Your task to perform on an android device: add a label to a message in the gmail app Image 0: 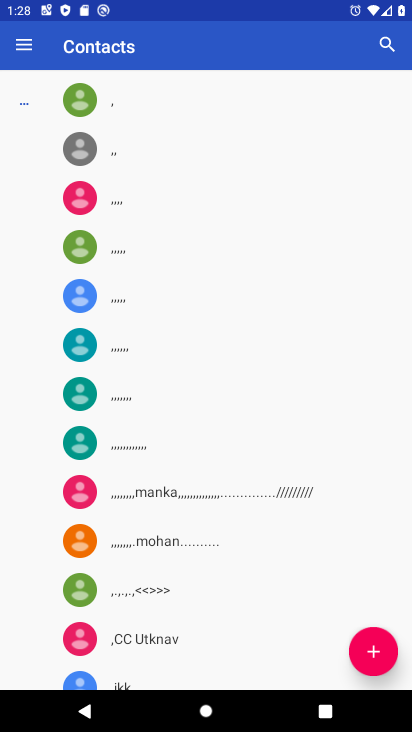
Step 0: press home button
Your task to perform on an android device: add a label to a message in the gmail app Image 1: 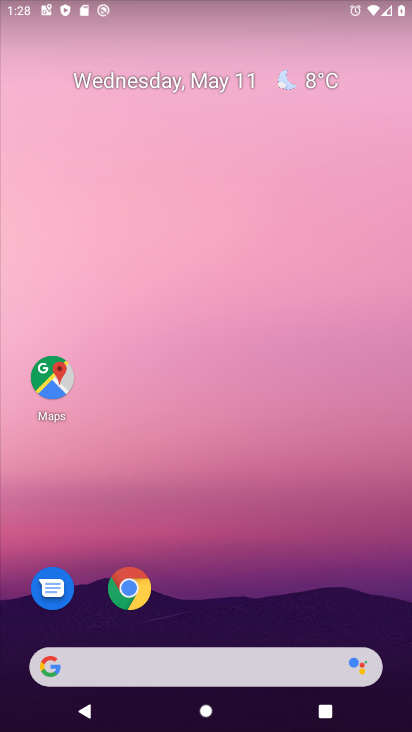
Step 1: drag from (325, 619) to (329, 28)
Your task to perform on an android device: add a label to a message in the gmail app Image 2: 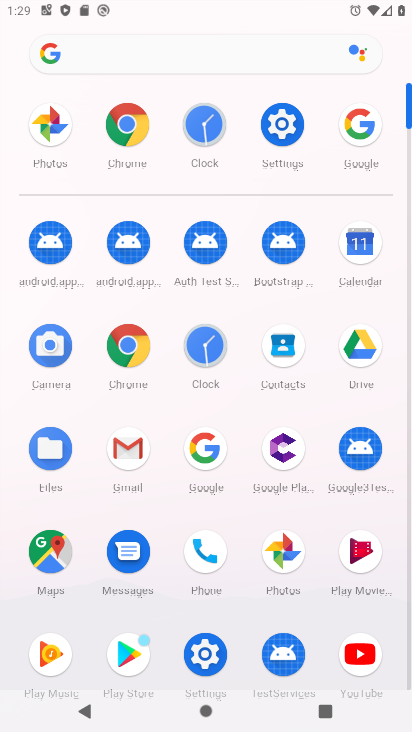
Step 2: click (130, 455)
Your task to perform on an android device: add a label to a message in the gmail app Image 3: 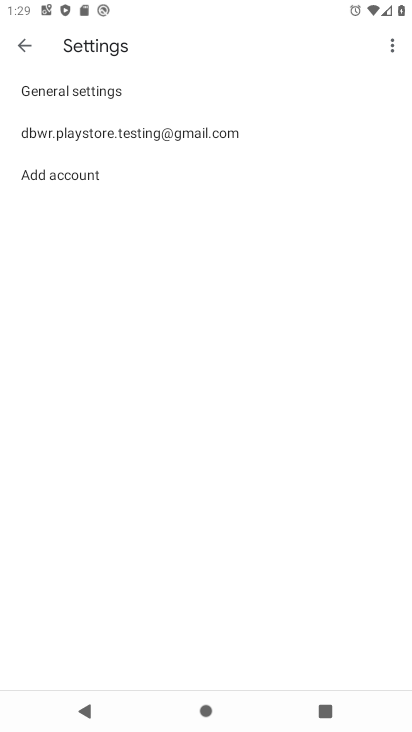
Step 3: click (23, 48)
Your task to perform on an android device: add a label to a message in the gmail app Image 4: 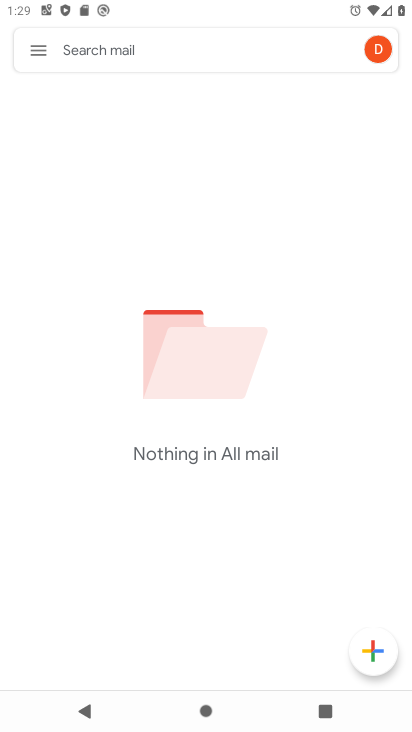
Step 4: task complete